Your task to perform on an android device: check android version Image 0: 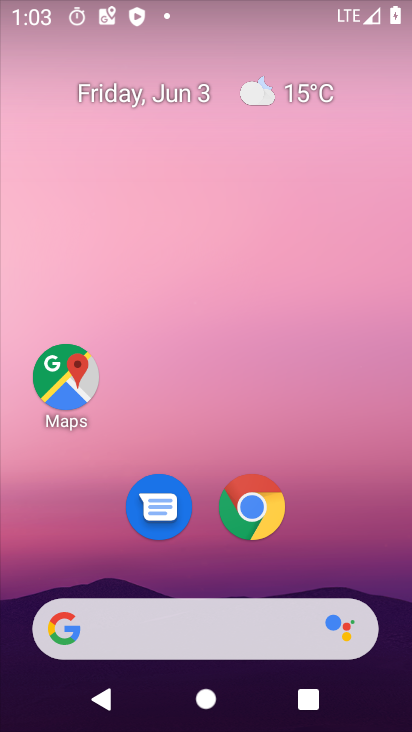
Step 0: drag from (247, 118) to (224, 83)
Your task to perform on an android device: check android version Image 1: 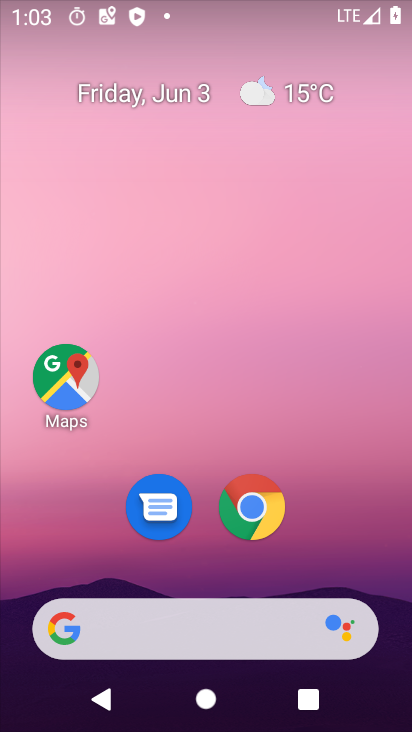
Step 1: drag from (354, 576) to (261, 3)
Your task to perform on an android device: check android version Image 2: 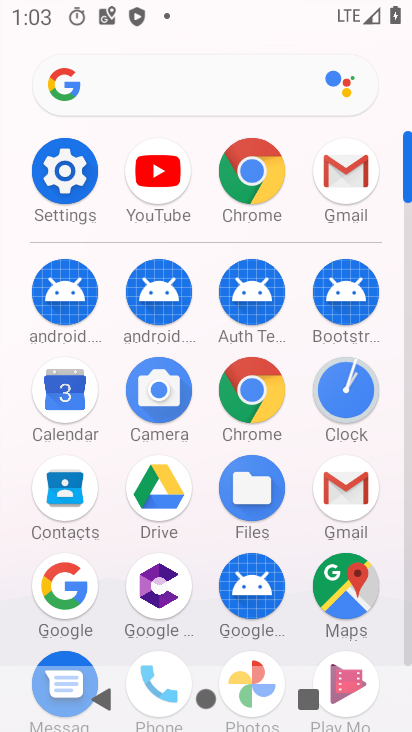
Step 2: click (70, 194)
Your task to perform on an android device: check android version Image 3: 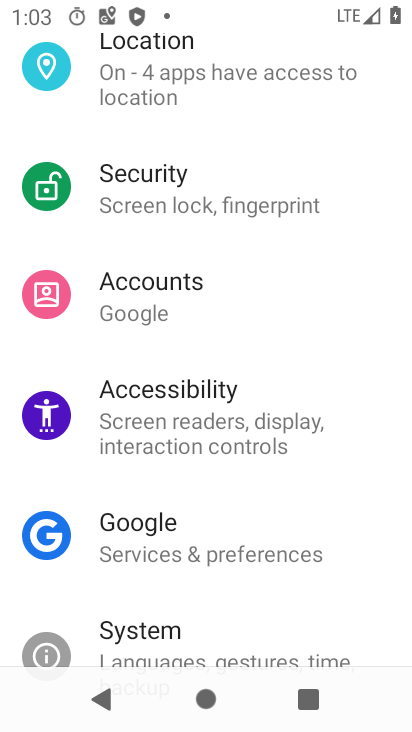
Step 3: click (221, 605)
Your task to perform on an android device: check android version Image 4: 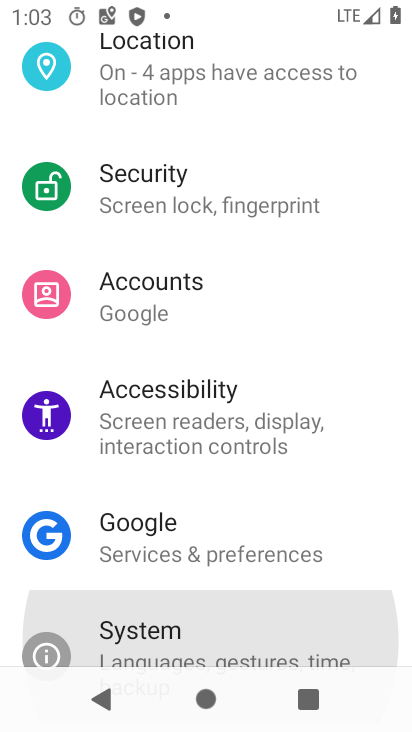
Step 4: drag from (231, 436) to (189, 173)
Your task to perform on an android device: check android version Image 5: 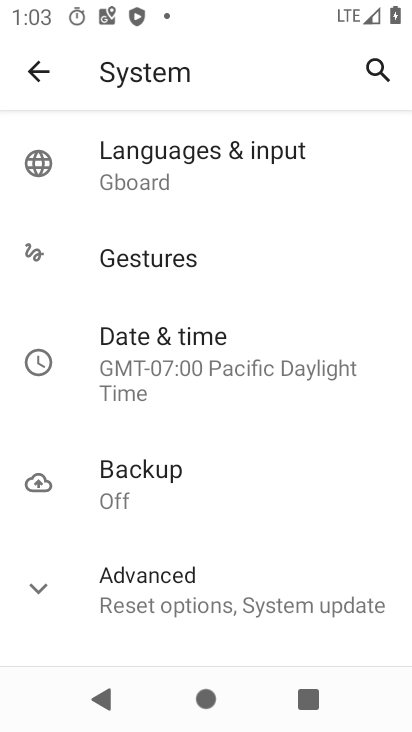
Step 5: press back button
Your task to perform on an android device: check android version Image 6: 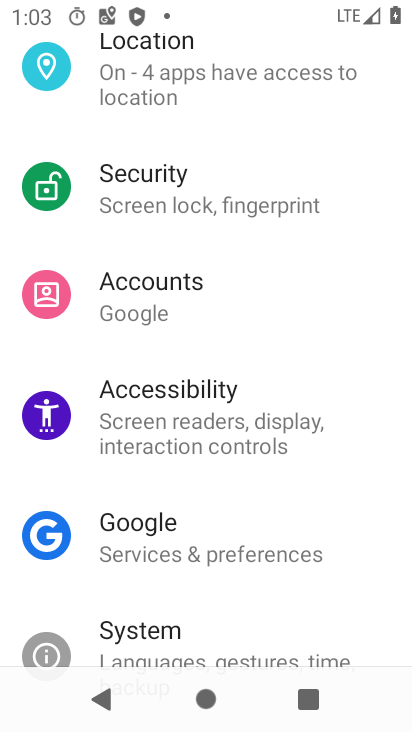
Step 6: drag from (227, 611) to (234, 91)
Your task to perform on an android device: check android version Image 7: 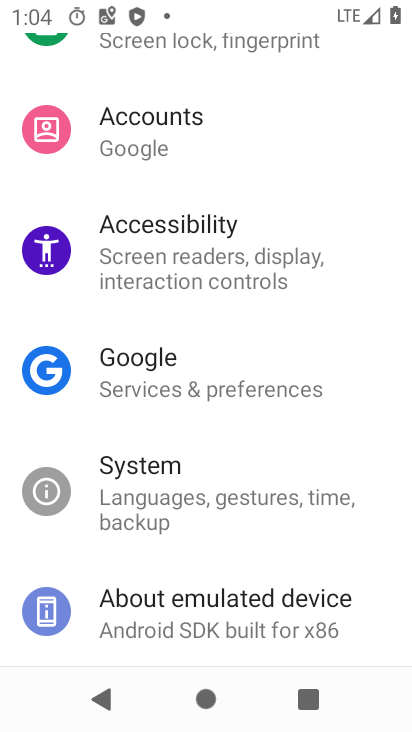
Step 7: click (145, 607)
Your task to perform on an android device: check android version Image 8: 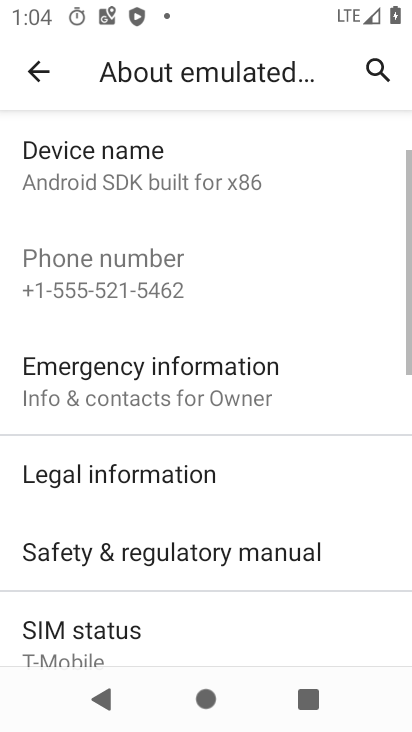
Step 8: drag from (144, 613) to (170, 355)
Your task to perform on an android device: check android version Image 9: 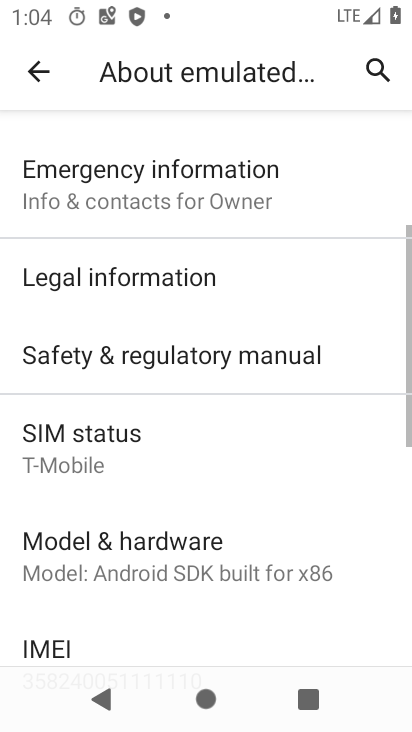
Step 9: drag from (152, 617) to (199, 369)
Your task to perform on an android device: check android version Image 10: 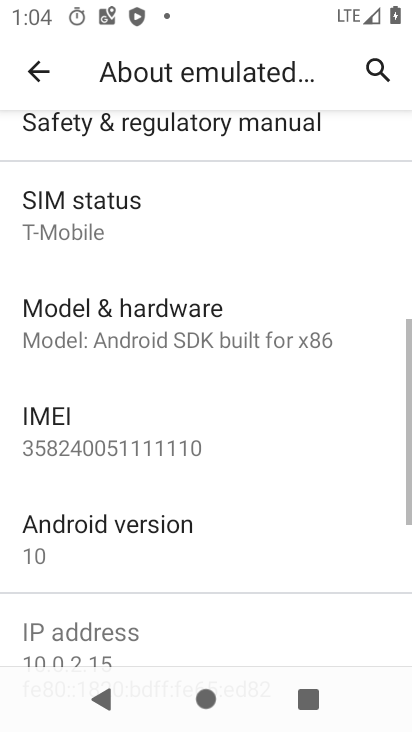
Step 10: click (189, 536)
Your task to perform on an android device: check android version Image 11: 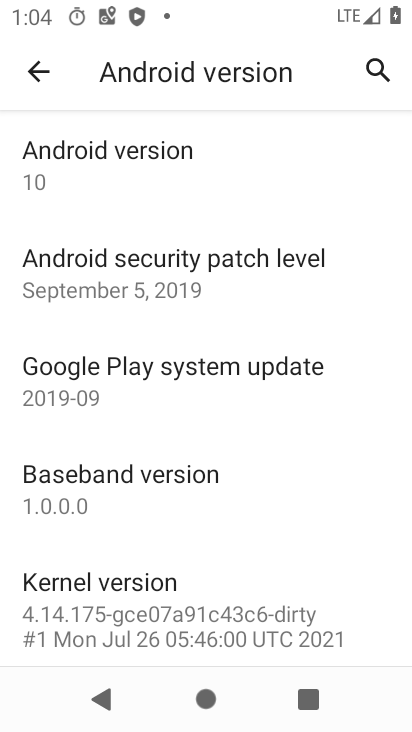
Step 11: task complete